Your task to perform on an android device: change your default location settings in chrome Image 0: 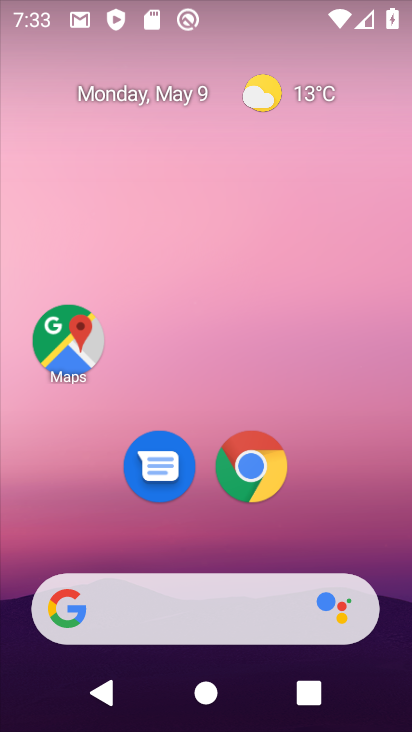
Step 0: drag from (341, 555) to (329, 327)
Your task to perform on an android device: change your default location settings in chrome Image 1: 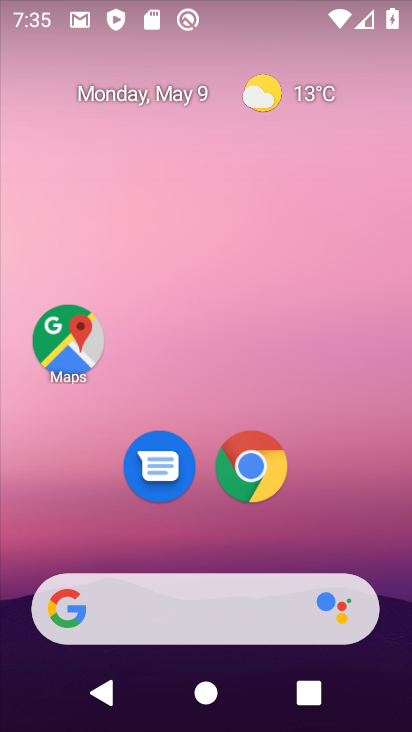
Step 1: drag from (343, 541) to (393, 147)
Your task to perform on an android device: change your default location settings in chrome Image 2: 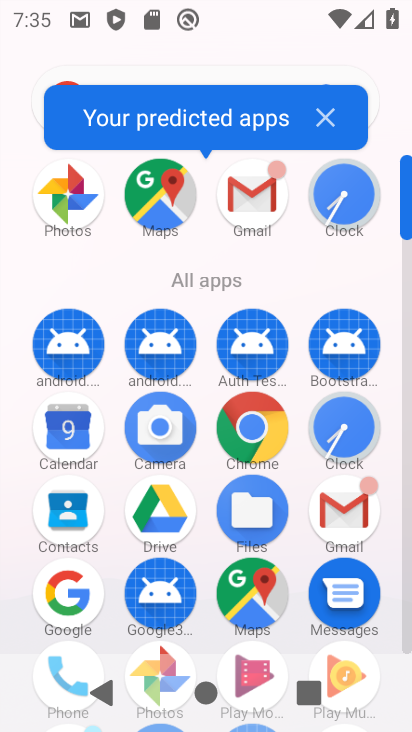
Step 2: click (259, 430)
Your task to perform on an android device: change your default location settings in chrome Image 3: 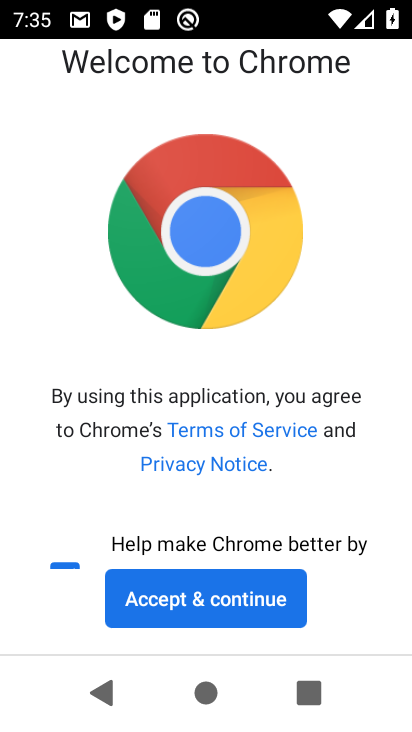
Step 3: click (236, 602)
Your task to perform on an android device: change your default location settings in chrome Image 4: 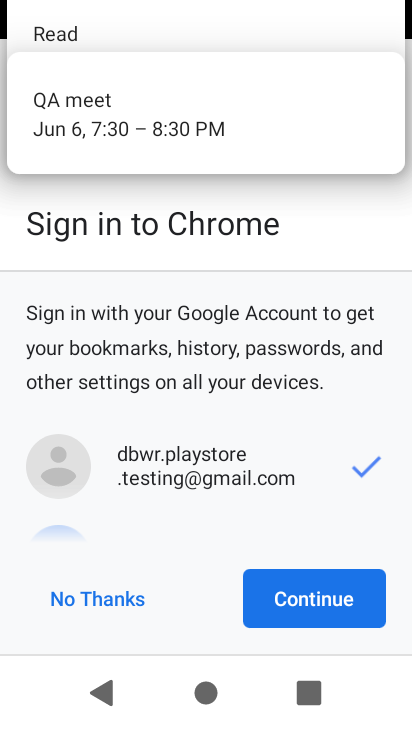
Step 4: click (273, 604)
Your task to perform on an android device: change your default location settings in chrome Image 5: 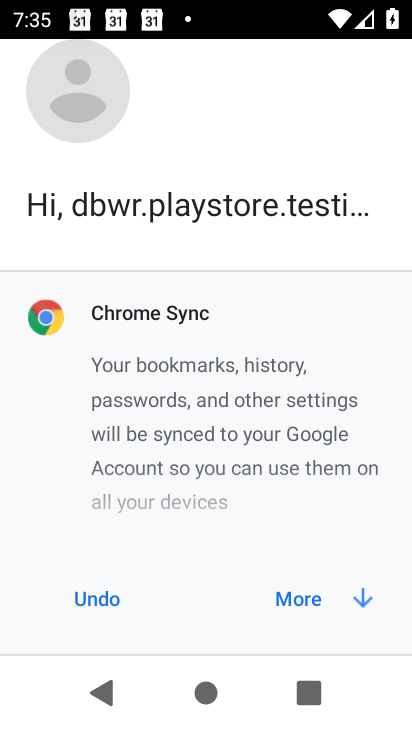
Step 5: click (273, 604)
Your task to perform on an android device: change your default location settings in chrome Image 6: 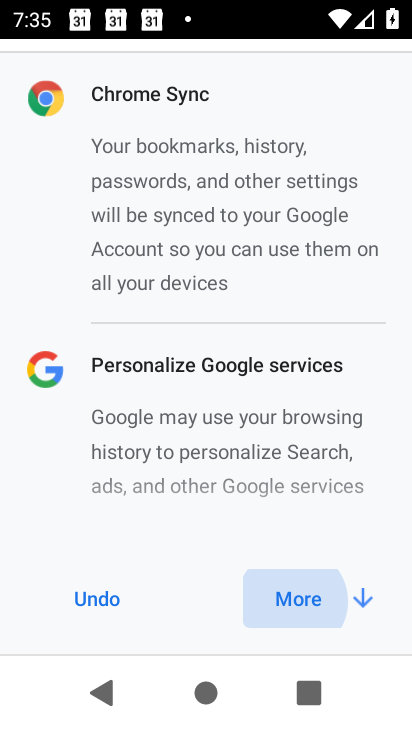
Step 6: click (273, 604)
Your task to perform on an android device: change your default location settings in chrome Image 7: 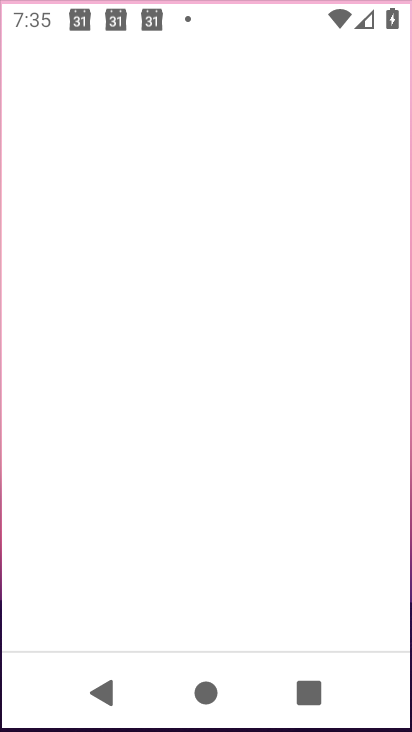
Step 7: click (283, 599)
Your task to perform on an android device: change your default location settings in chrome Image 8: 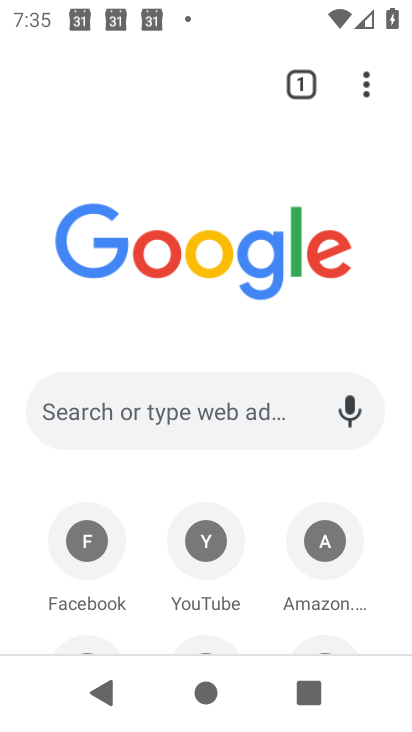
Step 8: click (351, 96)
Your task to perform on an android device: change your default location settings in chrome Image 9: 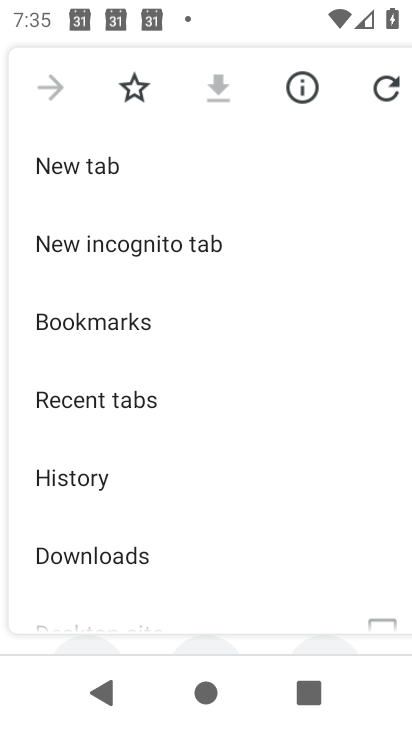
Step 9: drag from (251, 551) to (305, 135)
Your task to perform on an android device: change your default location settings in chrome Image 10: 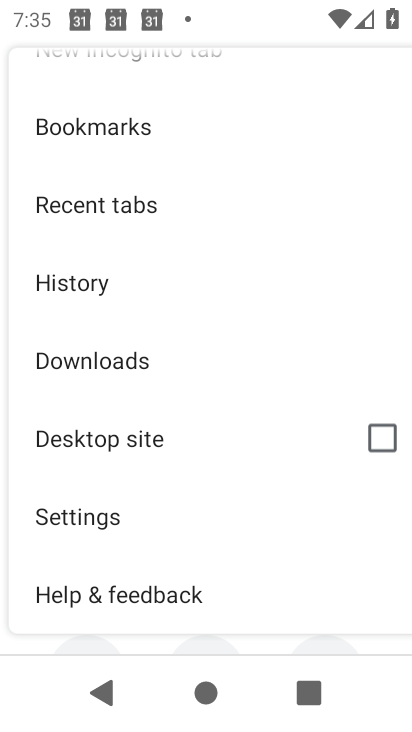
Step 10: click (158, 522)
Your task to perform on an android device: change your default location settings in chrome Image 11: 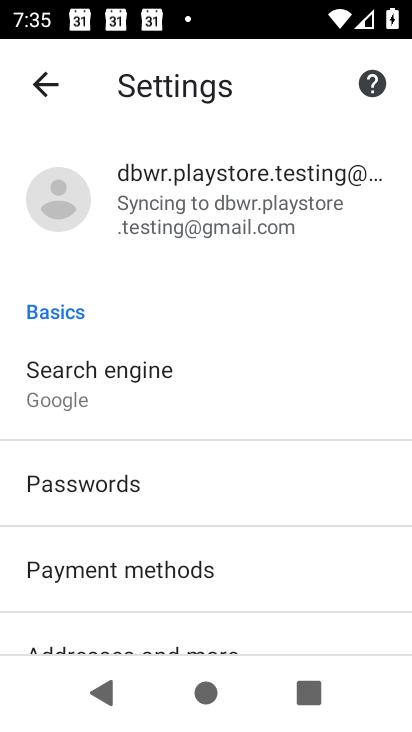
Step 11: drag from (252, 548) to (310, 161)
Your task to perform on an android device: change your default location settings in chrome Image 12: 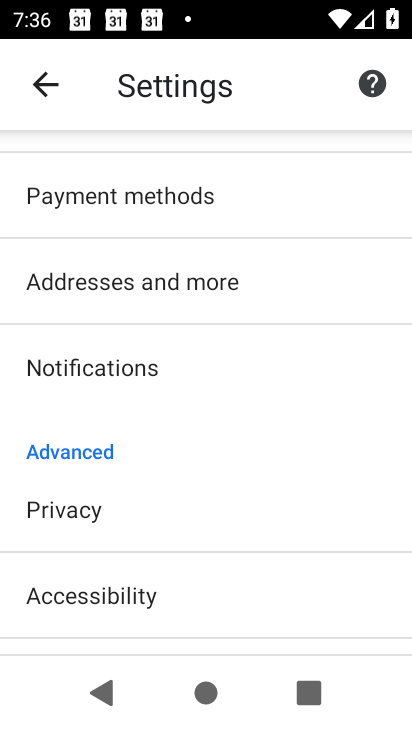
Step 12: drag from (138, 571) to (284, 130)
Your task to perform on an android device: change your default location settings in chrome Image 13: 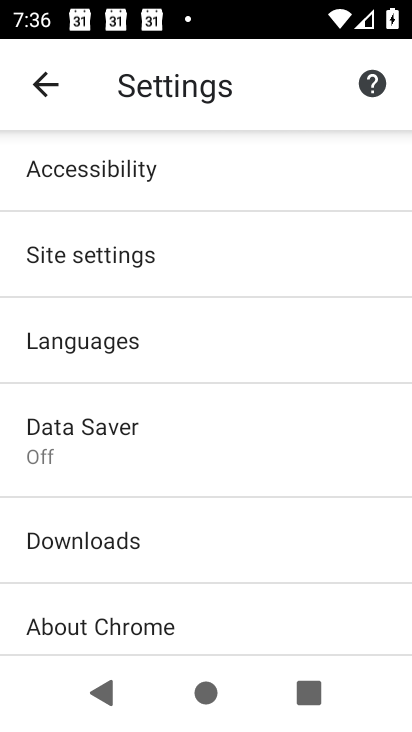
Step 13: click (208, 277)
Your task to perform on an android device: change your default location settings in chrome Image 14: 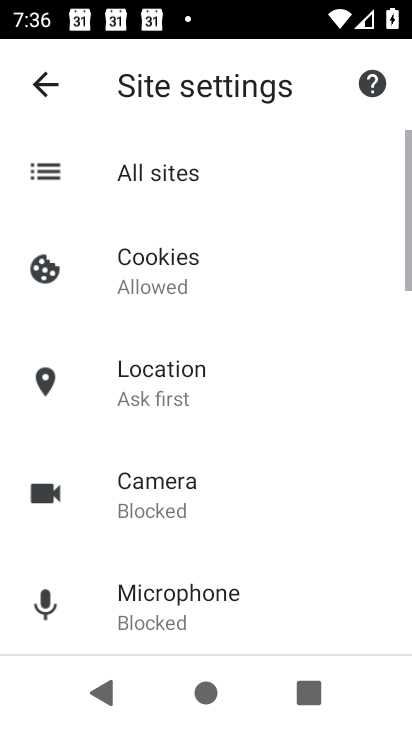
Step 14: click (161, 396)
Your task to perform on an android device: change your default location settings in chrome Image 15: 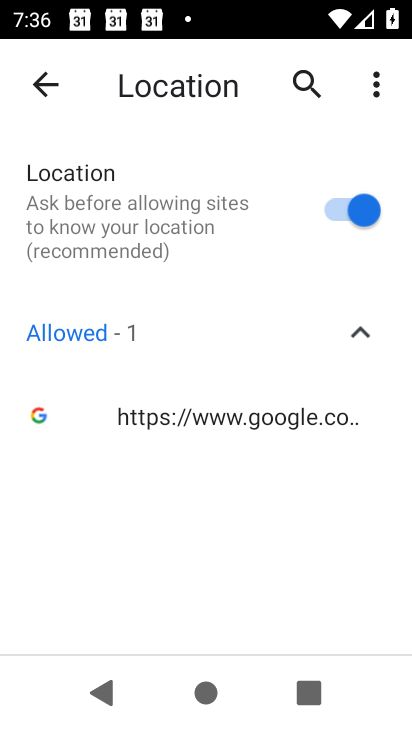
Step 15: click (346, 196)
Your task to perform on an android device: change your default location settings in chrome Image 16: 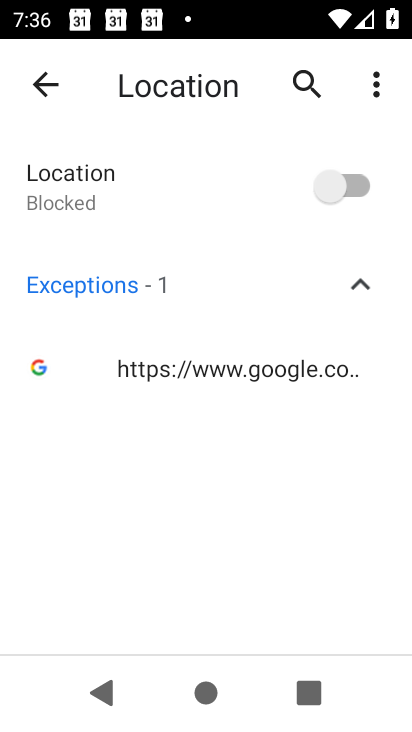
Step 16: task complete